Your task to perform on an android device: turn off improve location accuracy Image 0: 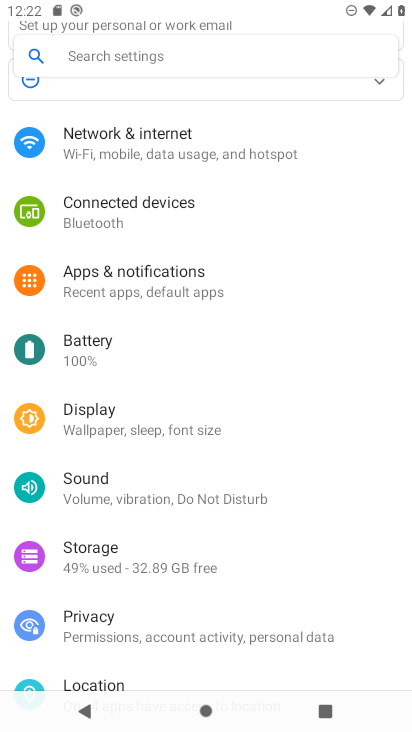
Step 0: press home button
Your task to perform on an android device: turn off improve location accuracy Image 1: 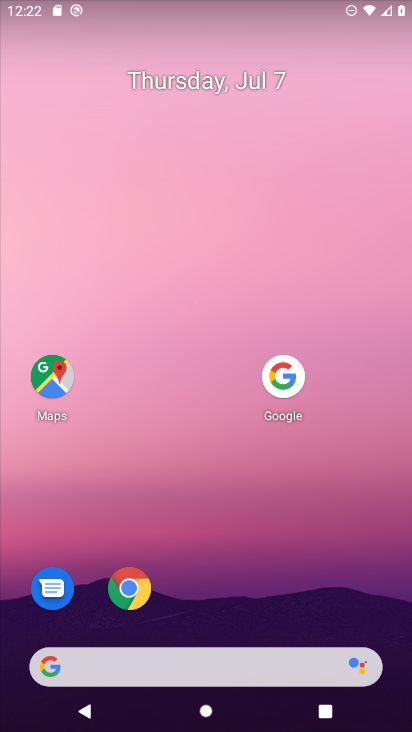
Step 1: drag from (165, 672) to (285, 163)
Your task to perform on an android device: turn off improve location accuracy Image 2: 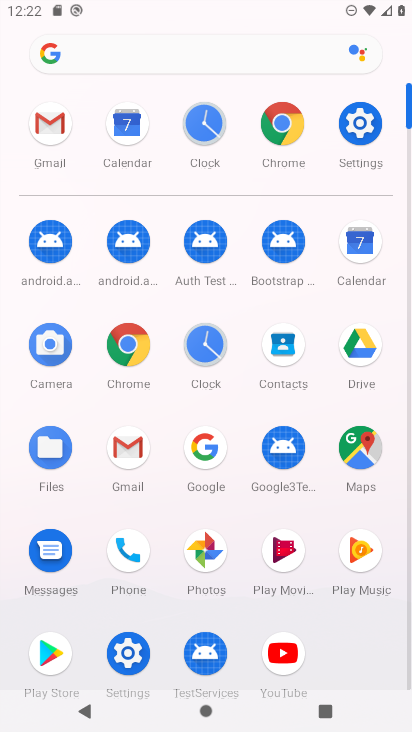
Step 2: click (360, 116)
Your task to perform on an android device: turn off improve location accuracy Image 3: 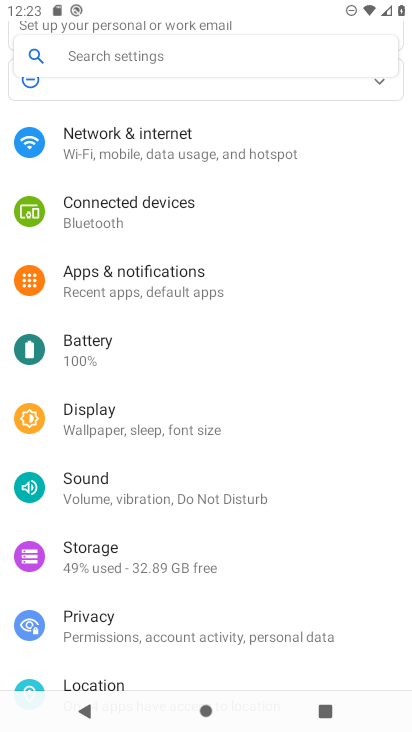
Step 3: drag from (145, 612) to (197, 346)
Your task to perform on an android device: turn off improve location accuracy Image 4: 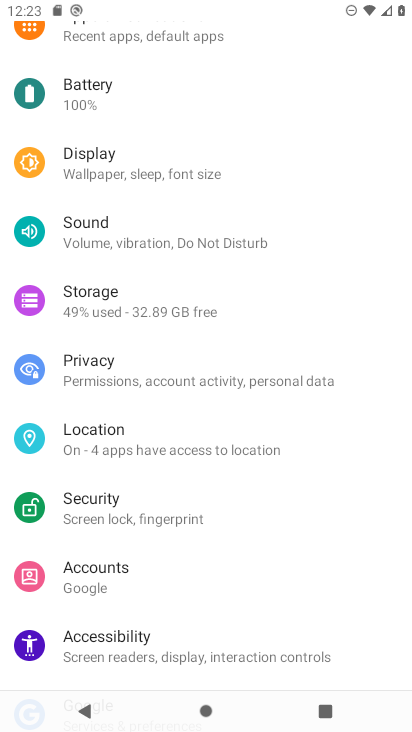
Step 4: click (114, 440)
Your task to perform on an android device: turn off improve location accuracy Image 5: 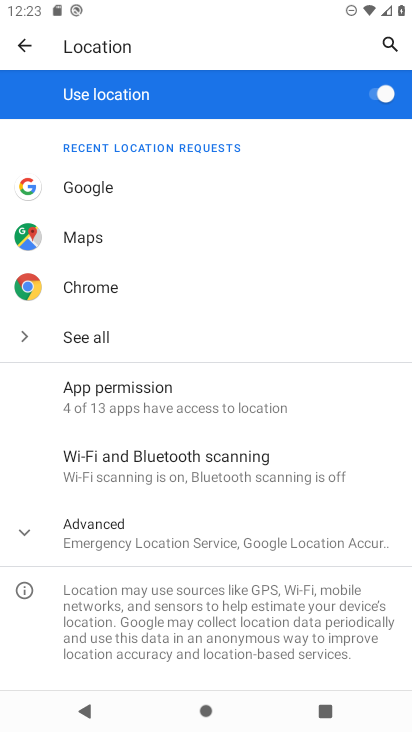
Step 5: click (127, 533)
Your task to perform on an android device: turn off improve location accuracy Image 6: 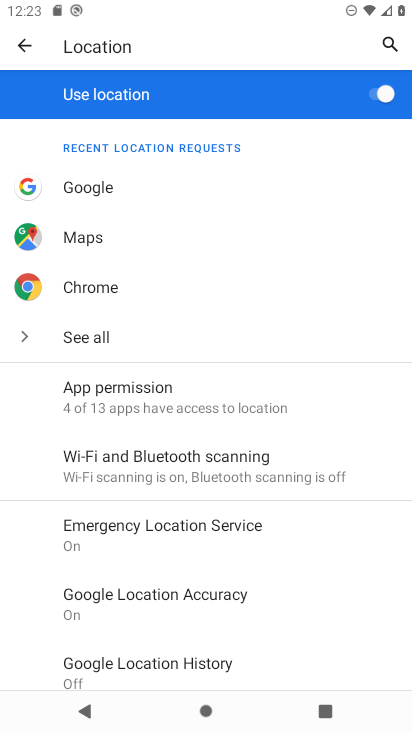
Step 6: drag from (211, 573) to (237, 411)
Your task to perform on an android device: turn off improve location accuracy Image 7: 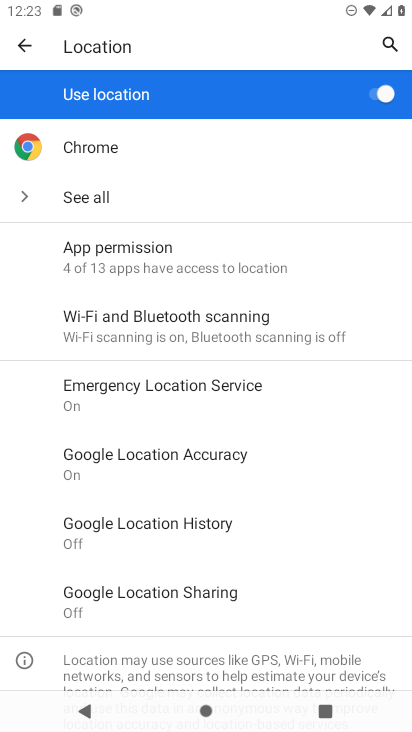
Step 7: click (170, 457)
Your task to perform on an android device: turn off improve location accuracy Image 8: 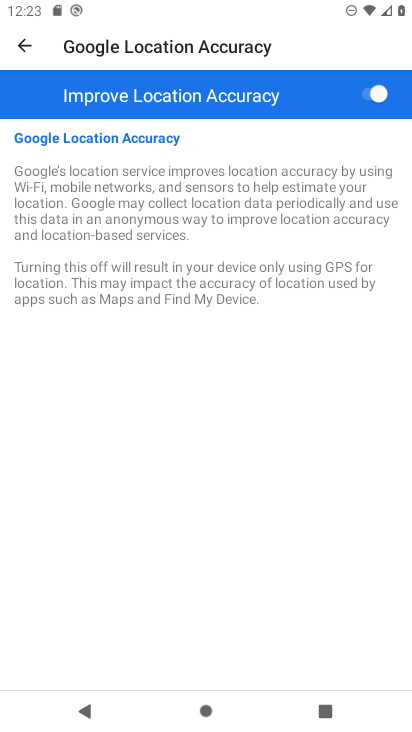
Step 8: click (365, 90)
Your task to perform on an android device: turn off improve location accuracy Image 9: 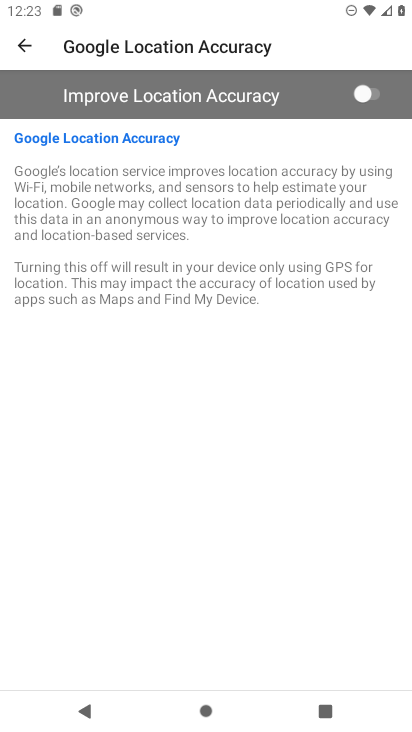
Step 9: task complete